Your task to perform on an android device: toggle notification dots Image 0: 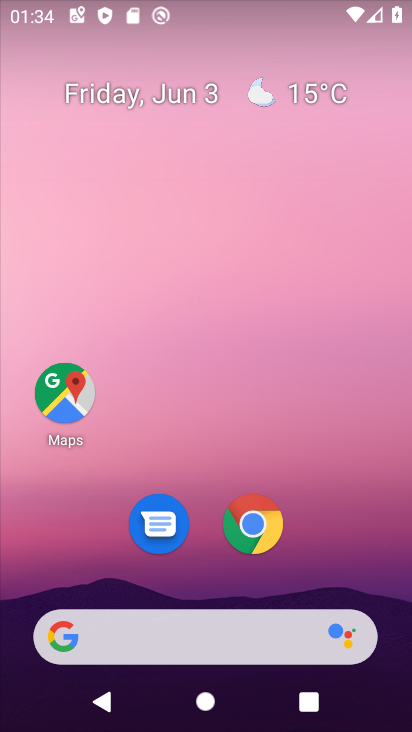
Step 0: drag from (234, 423) to (248, 0)
Your task to perform on an android device: toggle notification dots Image 1: 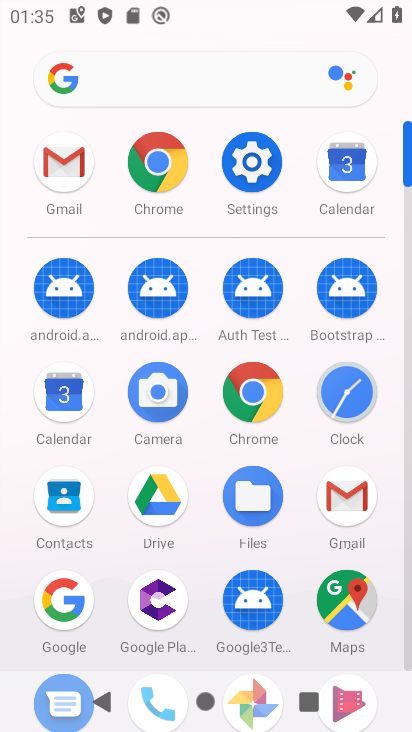
Step 1: click (248, 159)
Your task to perform on an android device: toggle notification dots Image 2: 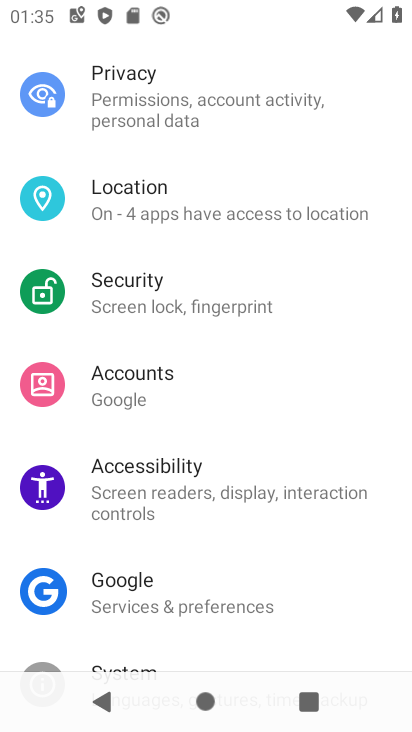
Step 2: drag from (252, 258) to (292, 649)
Your task to perform on an android device: toggle notification dots Image 3: 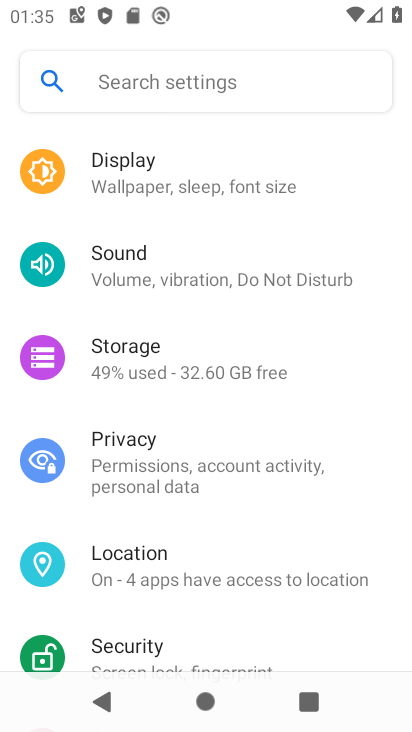
Step 3: drag from (223, 233) to (265, 550)
Your task to perform on an android device: toggle notification dots Image 4: 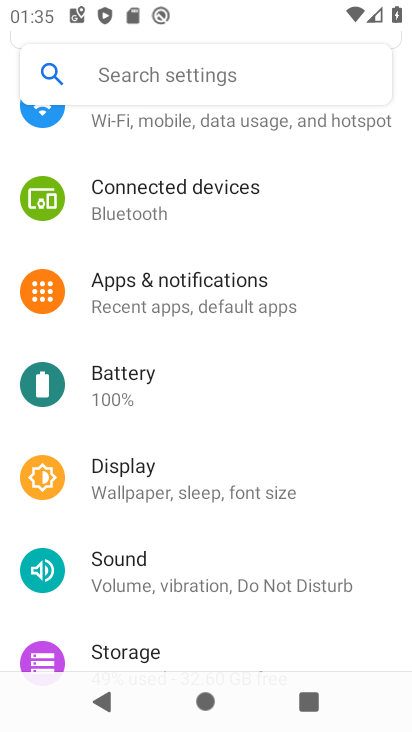
Step 4: click (221, 293)
Your task to perform on an android device: toggle notification dots Image 5: 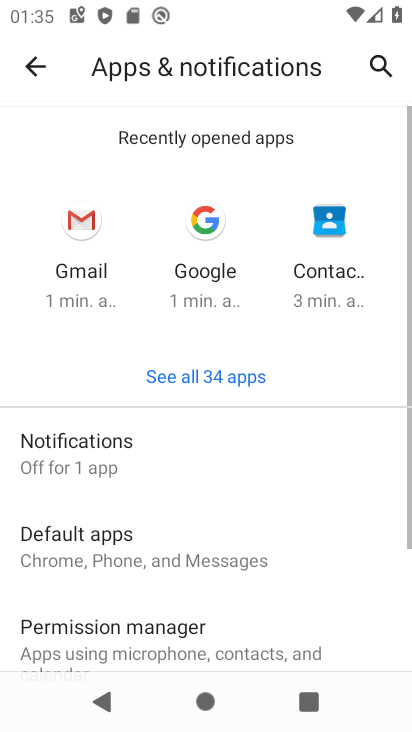
Step 5: click (214, 458)
Your task to perform on an android device: toggle notification dots Image 6: 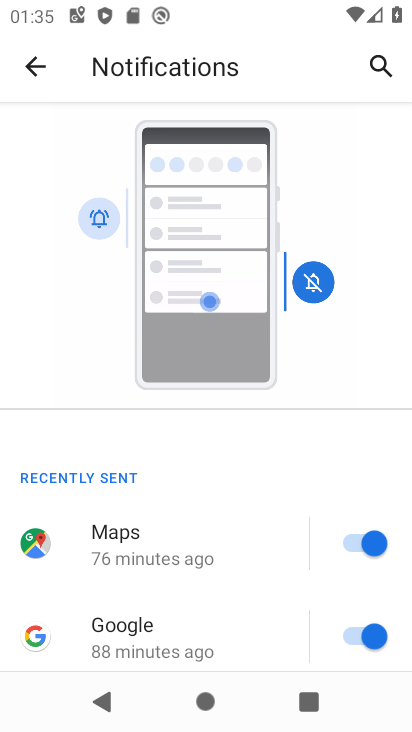
Step 6: drag from (226, 482) to (205, 55)
Your task to perform on an android device: toggle notification dots Image 7: 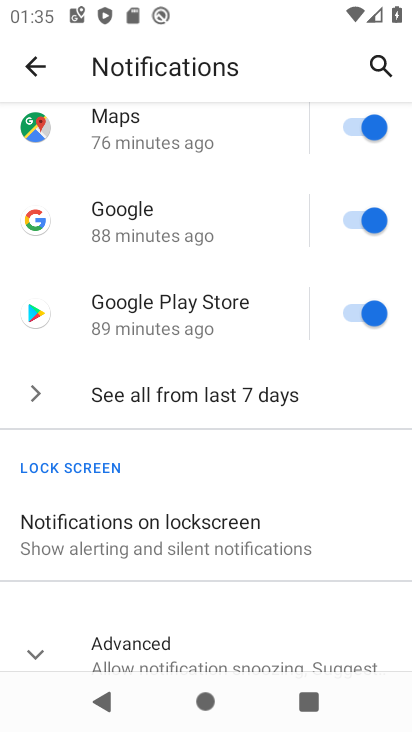
Step 7: click (23, 646)
Your task to perform on an android device: toggle notification dots Image 8: 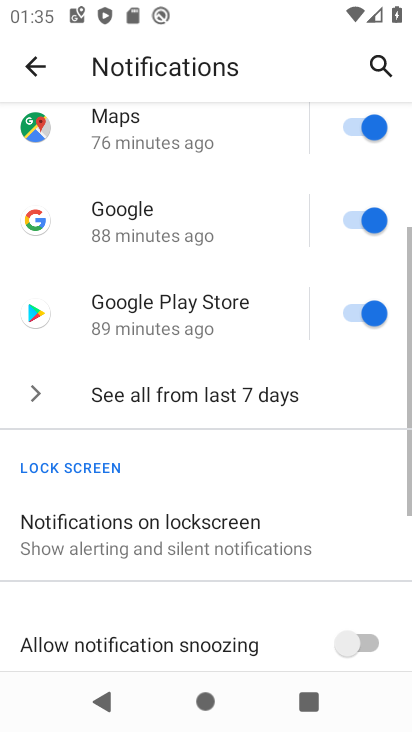
Step 8: drag from (262, 561) to (310, 126)
Your task to perform on an android device: toggle notification dots Image 9: 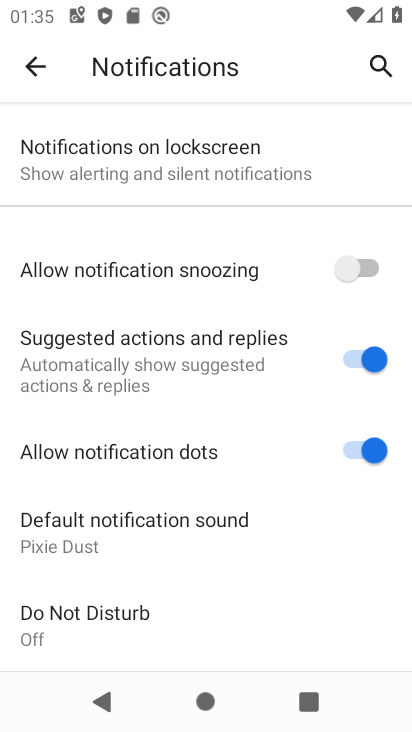
Step 9: click (364, 448)
Your task to perform on an android device: toggle notification dots Image 10: 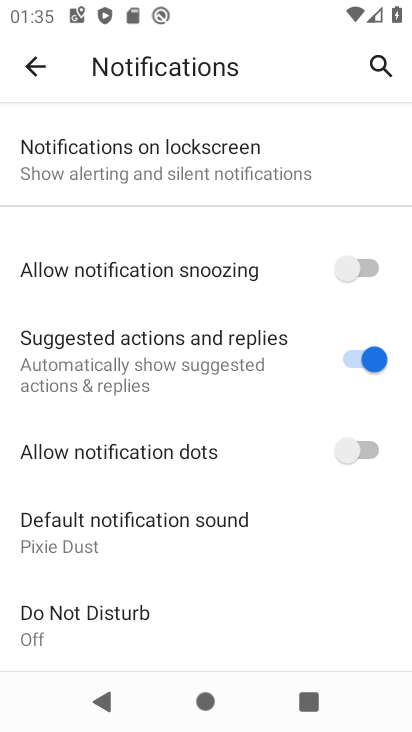
Step 10: task complete